Your task to perform on an android device: Play the last video I watched on Youtube Image 0: 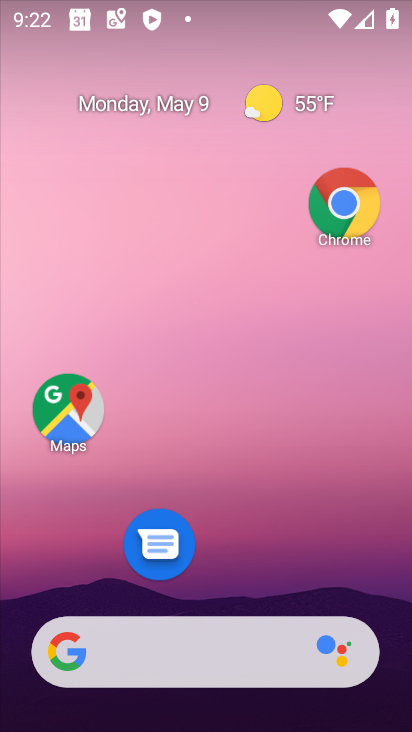
Step 0: drag from (254, 575) to (261, 257)
Your task to perform on an android device: Play the last video I watched on Youtube Image 1: 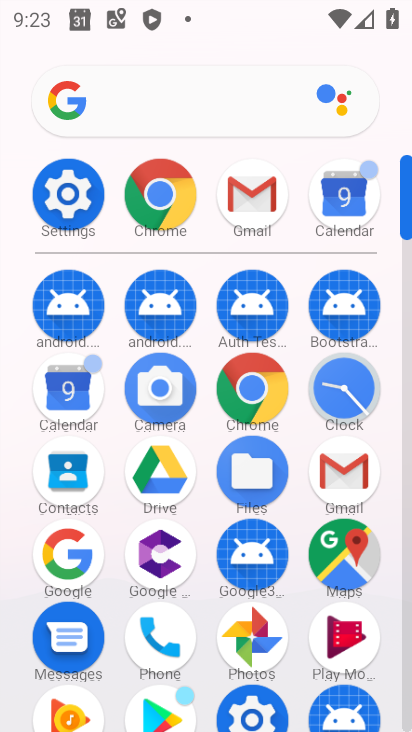
Step 1: drag from (198, 612) to (247, 149)
Your task to perform on an android device: Play the last video I watched on Youtube Image 2: 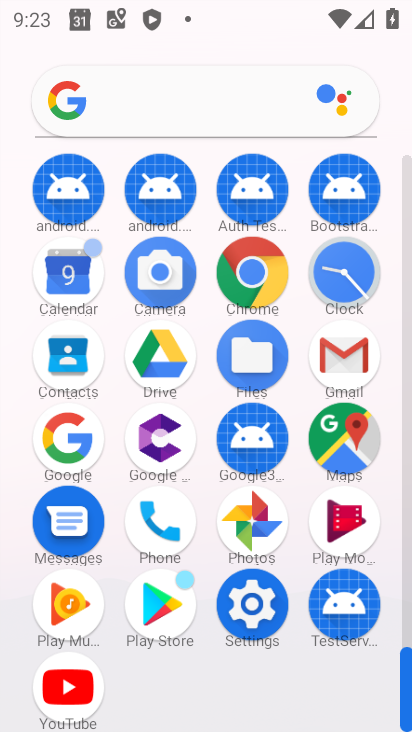
Step 2: click (75, 679)
Your task to perform on an android device: Play the last video I watched on Youtube Image 3: 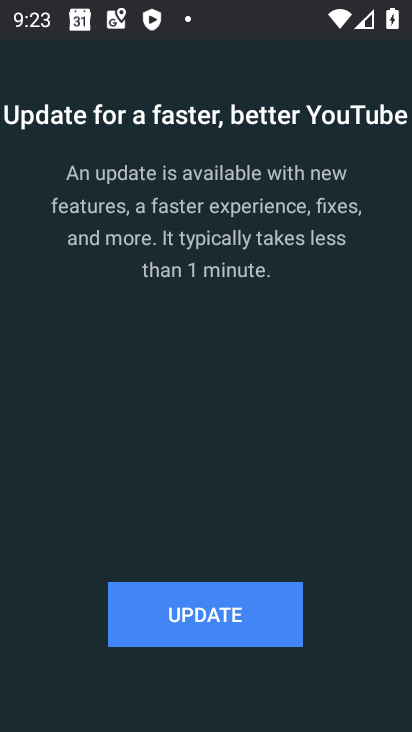
Step 3: click (185, 581)
Your task to perform on an android device: Play the last video I watched on Youtube Image 4: 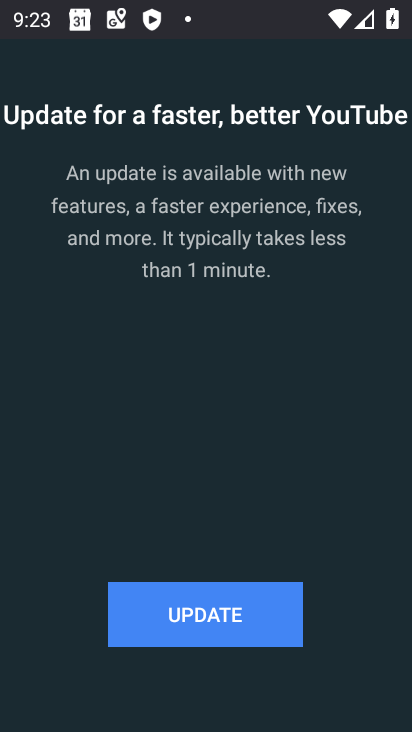
Step 4: click (218, 624)
Your task to perform on an android device: Play the last video I watched on Youtube Image 5: 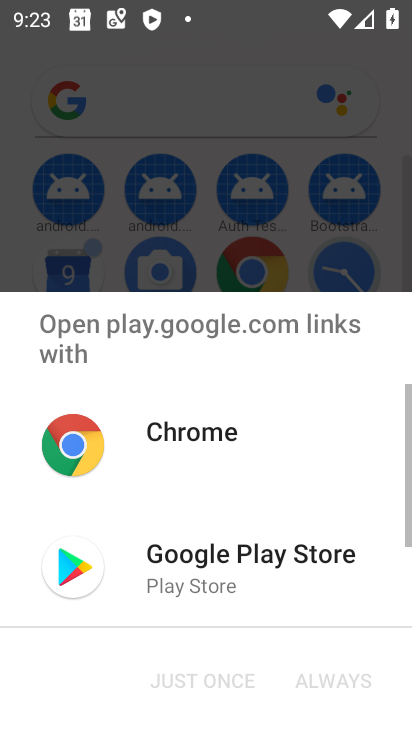
Step 5: drag from (152, 561) to (186, 561)
Your task to perform on an android device: Play the last video I watched on Youtube Image 6: 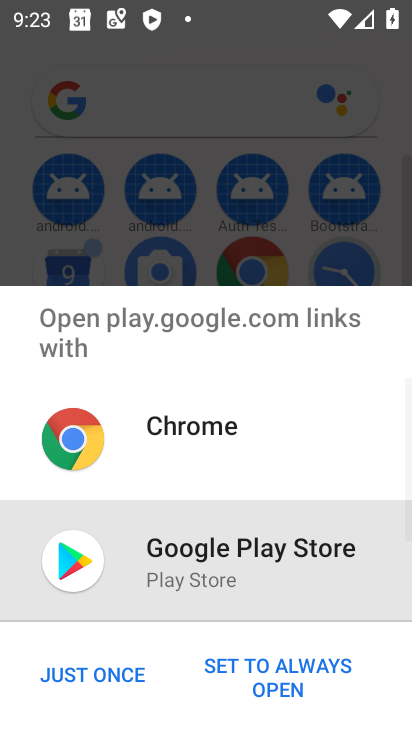
Step 6: click (97, 683)
Your task to perform on an android device: Play the last video I watched on Youtube Image 7: 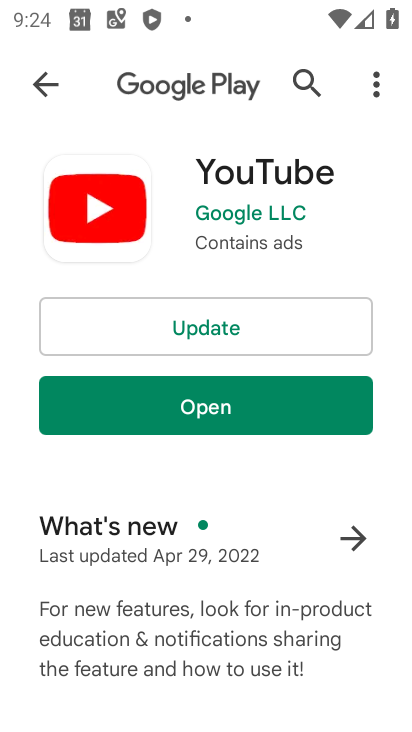
Step 7: click (206, 316)
Your task to perform on an android device: Play the last video I watched on Youtube Image 8: 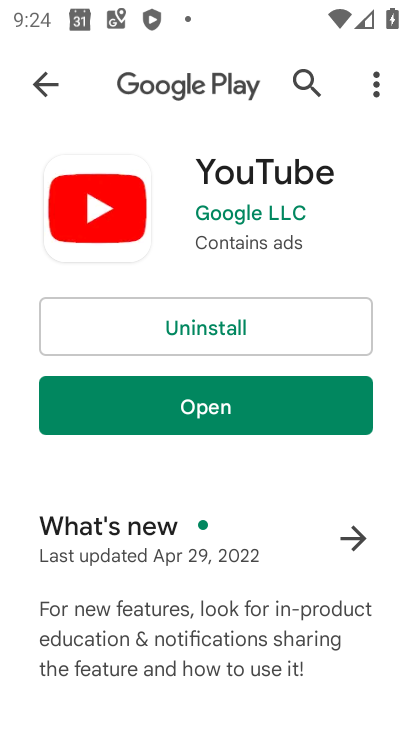
Step 8: click (224, 429)
Your task to perform on an android device: Play the last video I watched on Youtube Image 9: 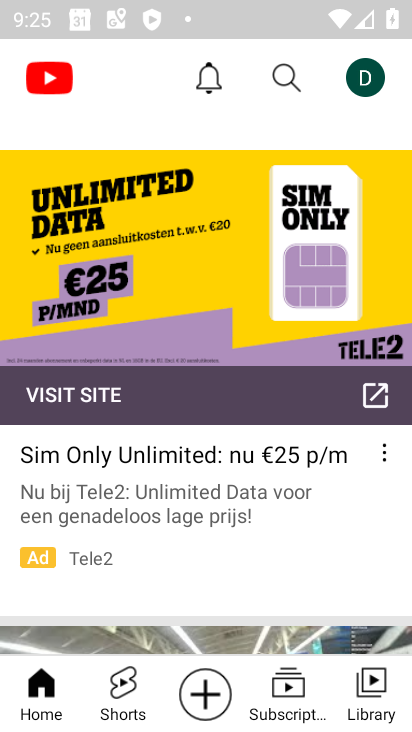
Step 9: click (381, 685)
Your task to perform on an android device: Play the last video I watched on Youtube Image 10: 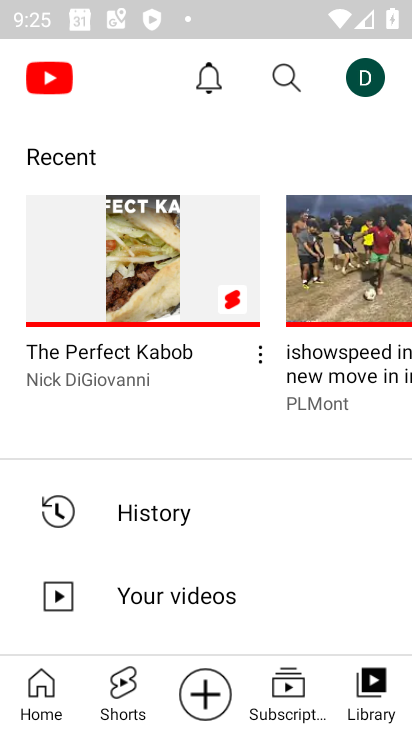
Step 10: click (110, 505)
Your task to perform on an android device: Play the last video I watched on Youtube Image 11: 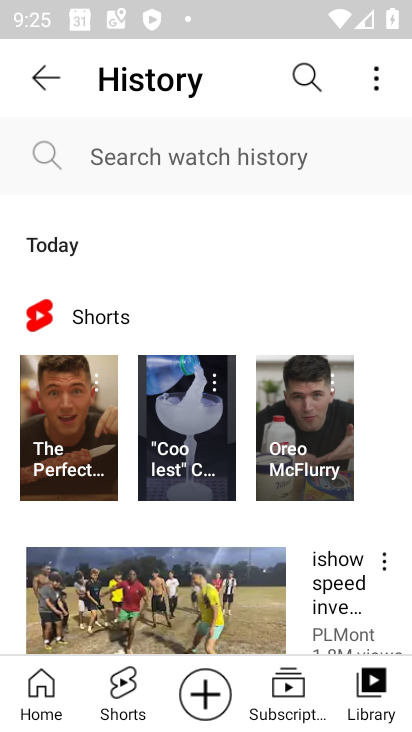
Step 11: drag from (154, 572) to (161, 335)
Your task to perform on an android device: Play the last video I watched on Youtube Image 12: 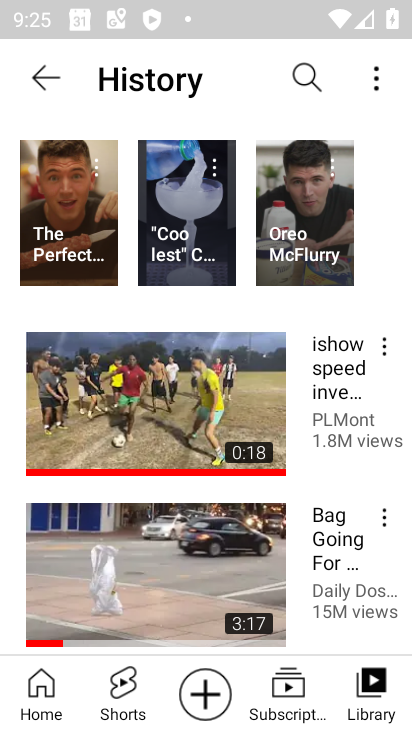
Step 12: click (169, 384)
Your task to perform on an android device: Play the last video I watched on Youtube Image 13: 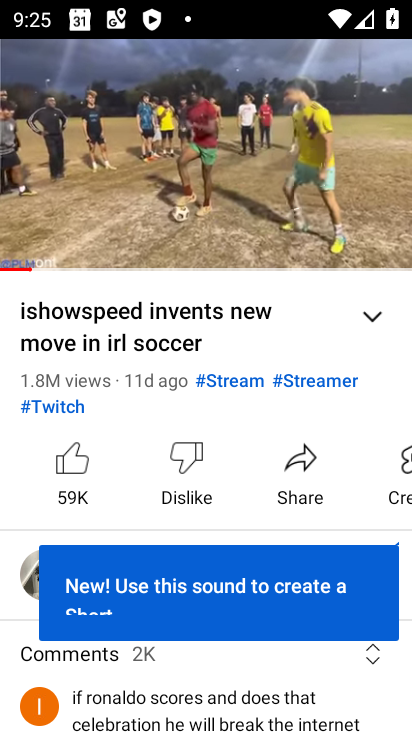
Step 13: task complete